Your task to perform on an android device: turn notification dots on Image 0: 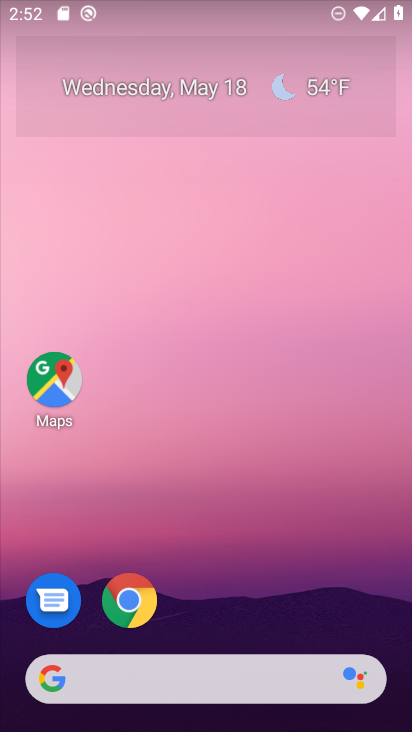
Step 0: drag from (207, 604) to (241, 126)
Your task to perform on an android device: turn notification dots on Image 1: 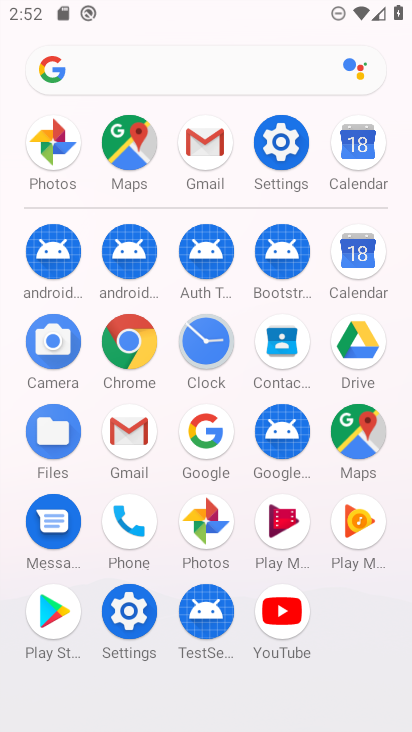
Step 1: click (269, 169)
Your task to perform on an android device: turn notification dots on Image 2: 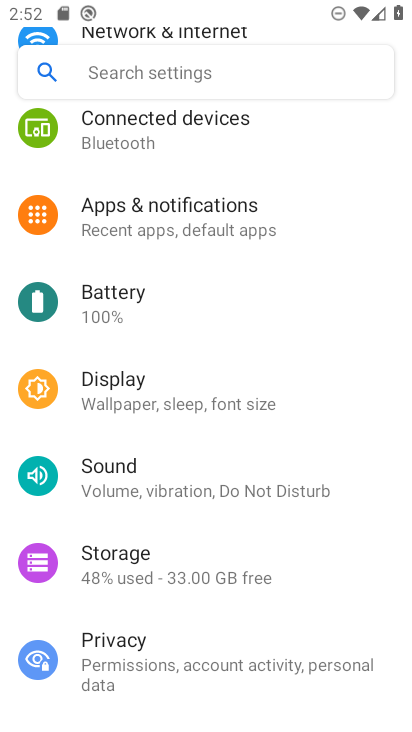
Step 2: click (235, 220)
Your task to perform on an android device: turn notification dots on Image 3: 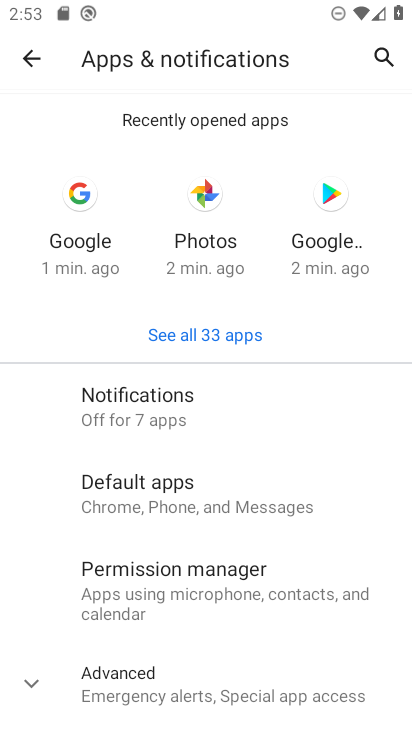
Step 3: click (152, 423)
Your task to perform on an android device: turn notification dots on Image 4: 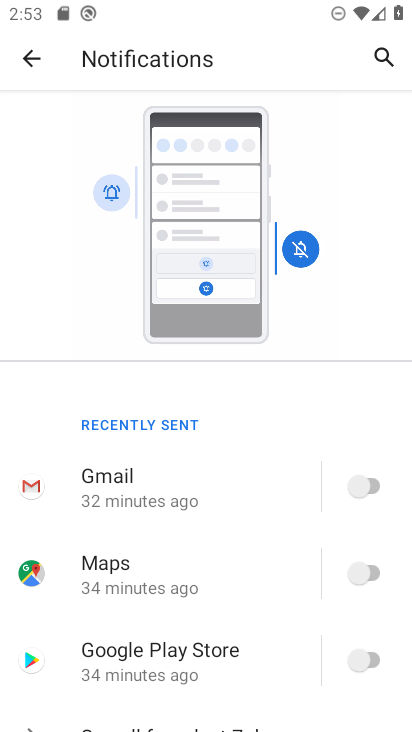
Step 4: drag from (205, 506) to (254, 225)
Your task to perform on an android device: turn notification dots on Image 5: 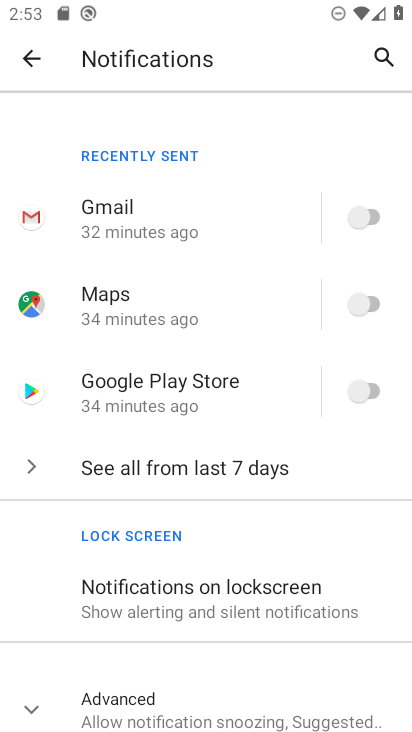
Step 5: drag from (211, 630) to (239, 442)
Your task to perform on an android device: turn notification dots on Image 6: 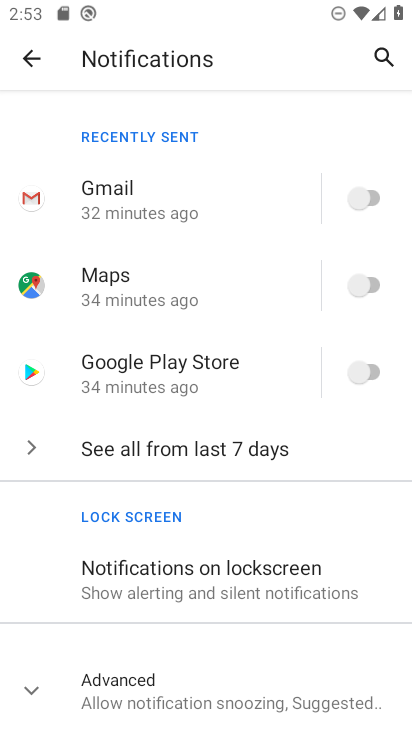
Step 6: click (139, 681)
Your task to perform on an android device: turn notification dots on Image 7: 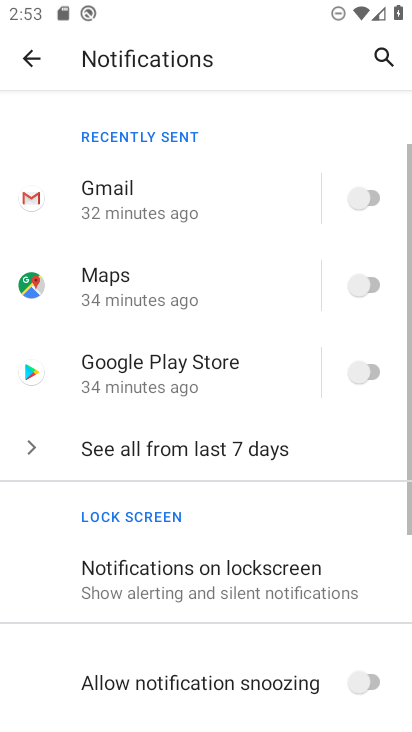
Step 7: task complete